Your task to perform on an android device: Toggle the flashlight Image 0: 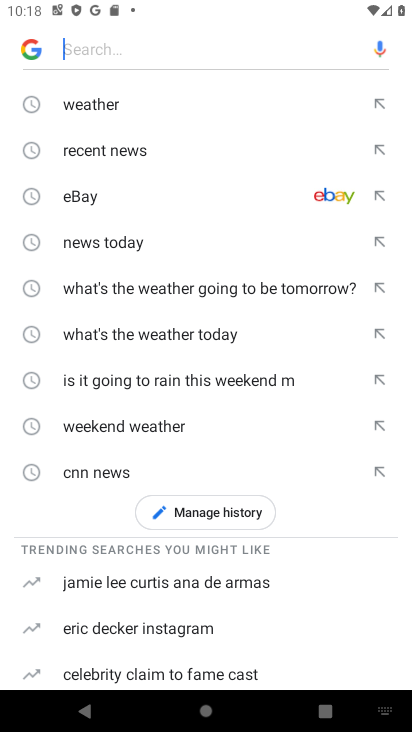
Step 0: press home button
Your task to perform on an android device: Toggle the flashlight Image 1: 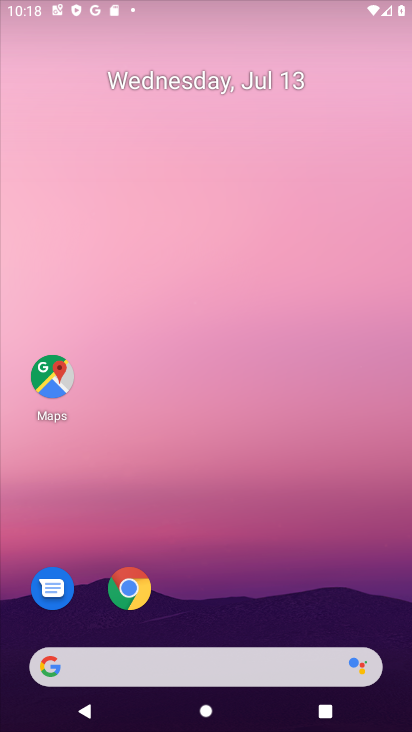
Step 1: drag from (199, 617) to (219, 90)
Your task to perform on an android device: Toggle the flashlight Image 2: 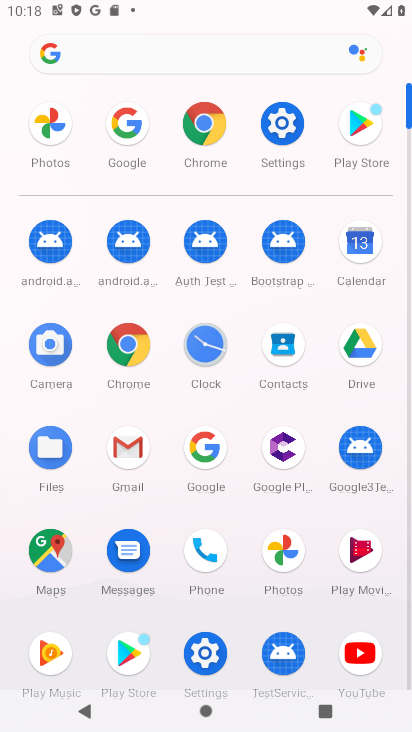
Step 2: click (285, 124)
Your task to perform on an android device: Toggle the flashlight Image 3: 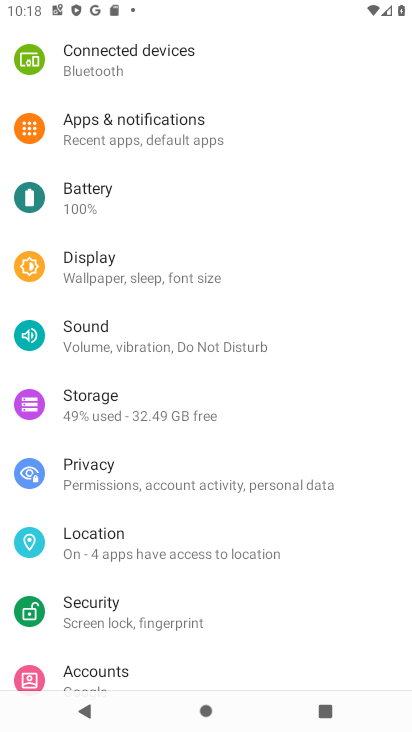
Step 3: drag from (143, 186) to (121, 467)
Your task to perform on an android device: Toggle the flashlight Image 4: 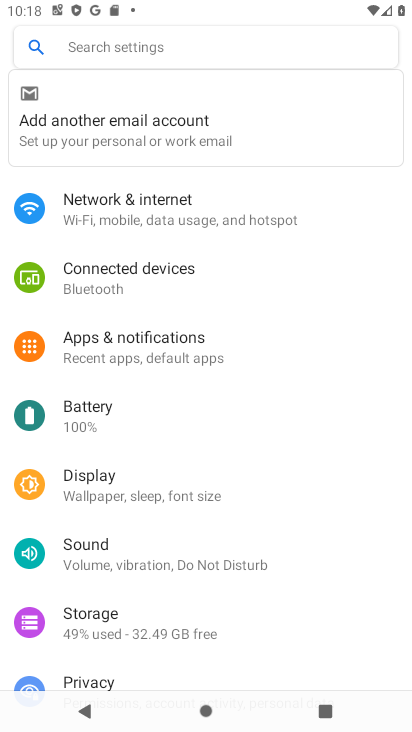
Step 4: click (126, 47)
Your task to perform on an android device: Toggle the flashlight Image 5: 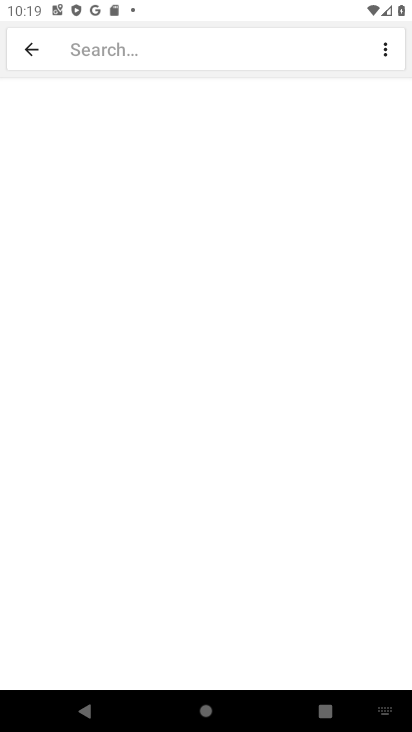
Step 5: type "flashlight"
Your task to perform on an android device: Toggle the flashlight Image 6: 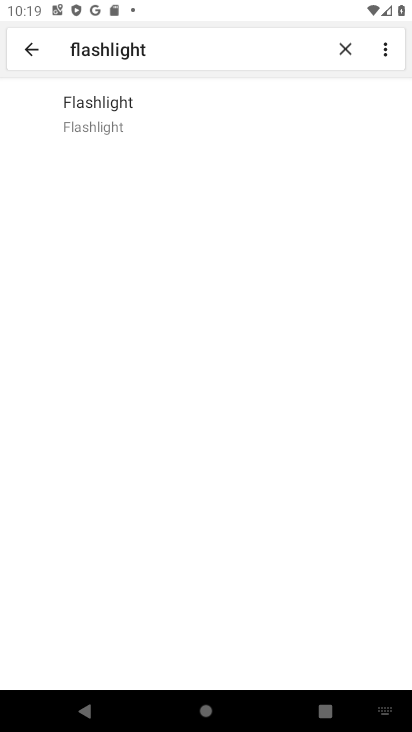
Step 6: task complete